Your task to perform on an android device: Open calendar and show me the third week of next month Image 0: 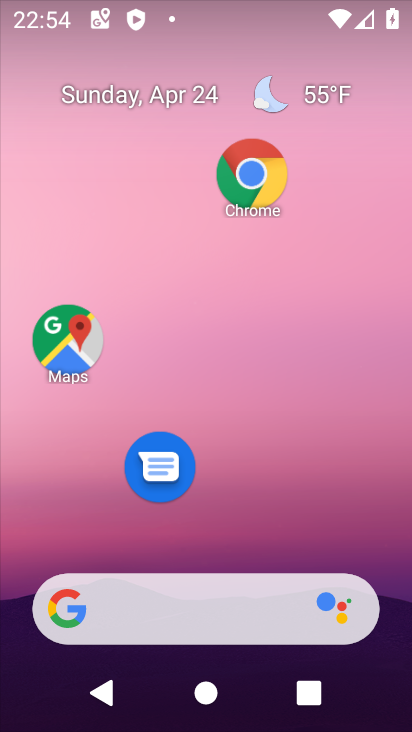
Step 0: drag from (287, 357) to (285, 27)
Your task to perform on an android device: Open calendar and show me the third week of next month Image 1: 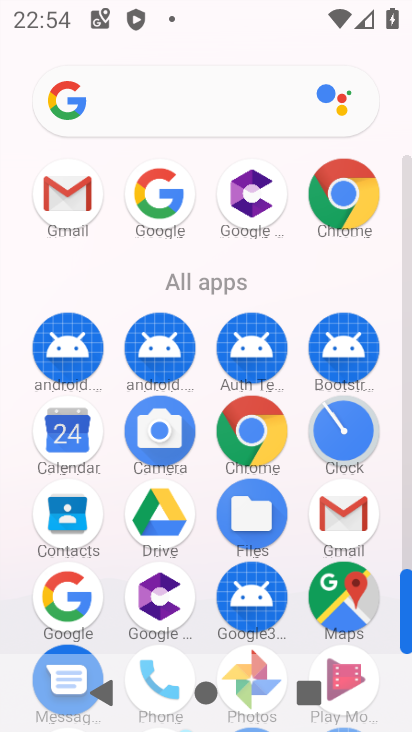
Step 1: click (64, 426)
Your task to perform on an android device: Open calendar and show me the third week of next month Image 2: 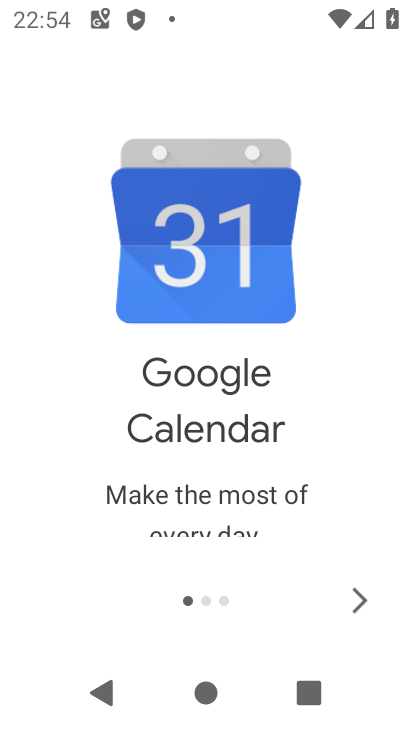
Step 2: click (360, 607)
Your task to perform on an android device: Open calendar and show me the third week of next month Image 3: 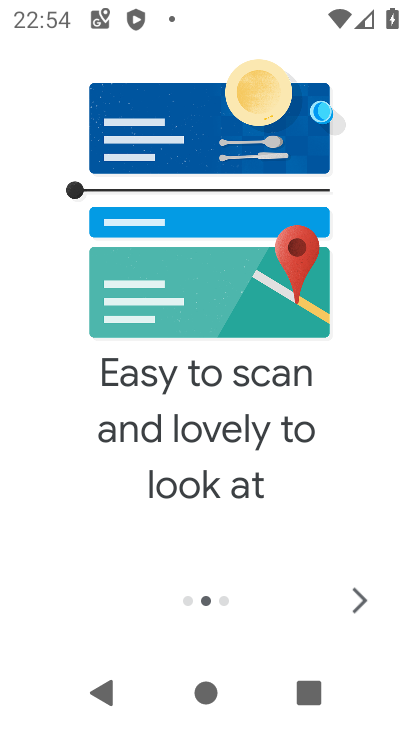
Step 3: click (360, 607)
Your task to perform on an android device: Open calendar and show me the third week of next month Image 4: 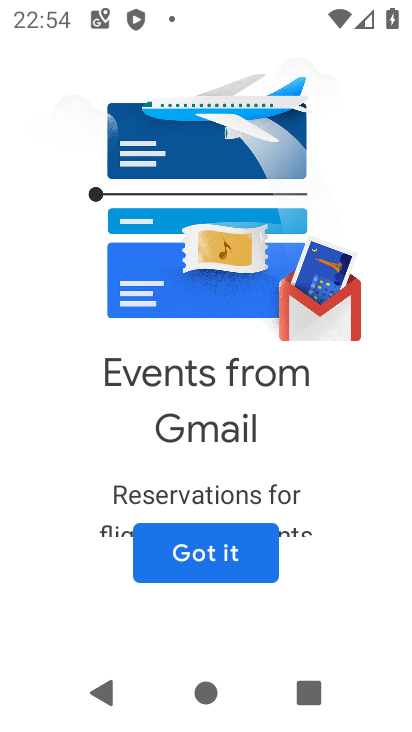
Step 4: click (202, 553)
Your task to perform on an android device: Open calendar and show me the third week of next month Image 5: 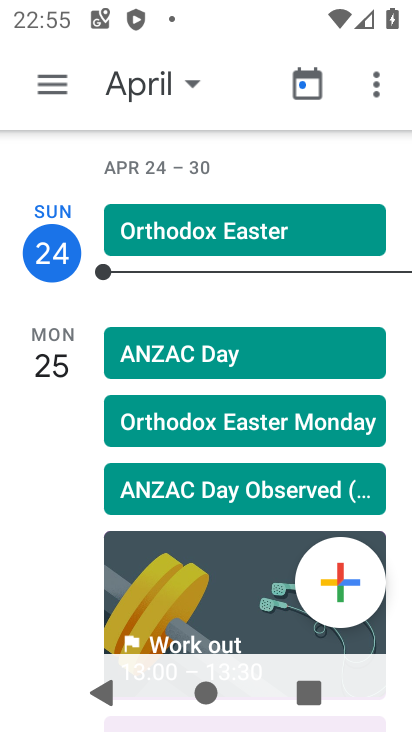
Step 5: click (184, 89)
Your task to perform on an android device: Open calendar and show me the third week of next month Image 6: 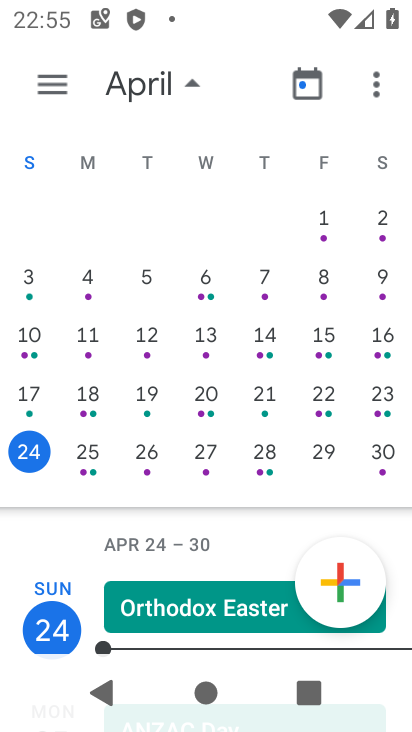
Step 6: drag from (380, 491) to (0, 463)
Your task to perform on an android device: Open calendar and show me the third week of next month Image 7: 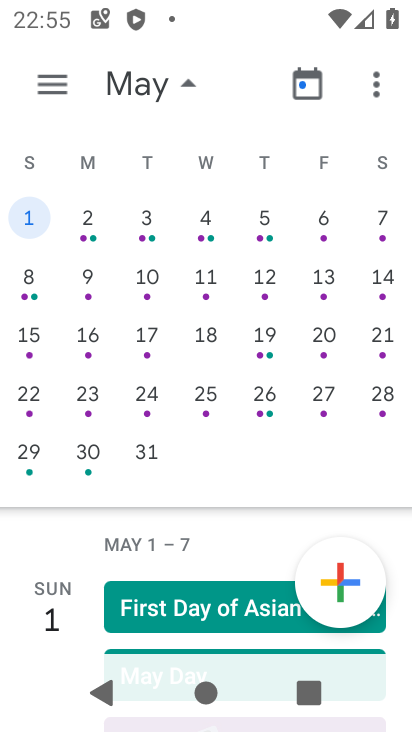
Step 7: click (153, 218)
Your task to perform on an android device: Open calendar and show me the third week of next month Image 8: 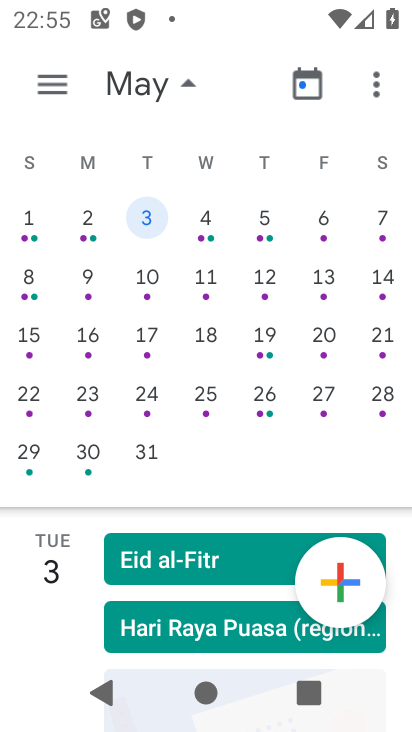
Step 8: task complete